Your task to perform on an android device: move an email to a new category in the gmail app Image 0: 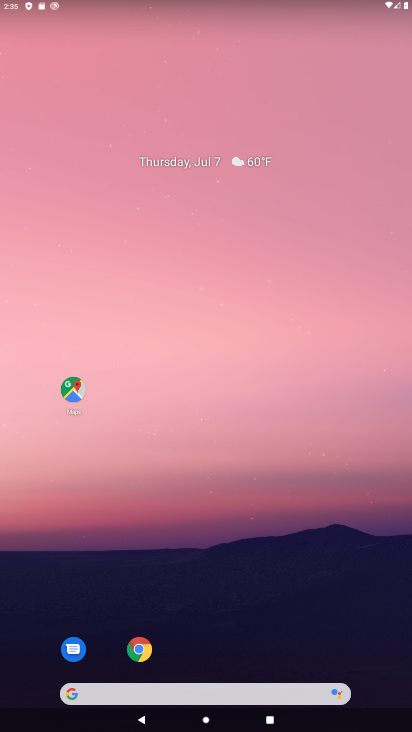
Step 0: drag from (170, 669) to (235, 102)
Your task to perform on an android device: move an email to a new category in the gmail app Image 1: 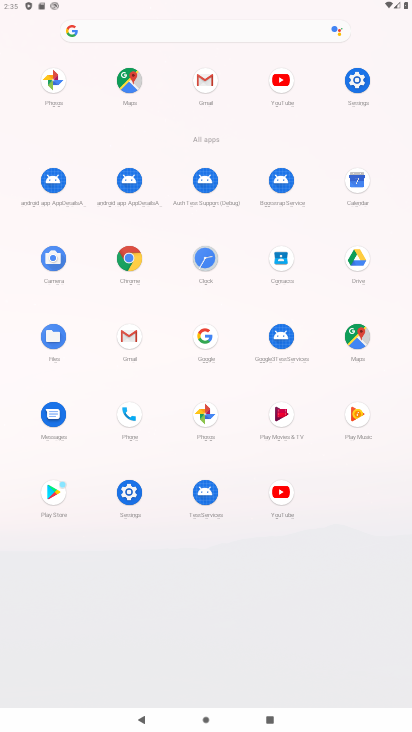
Step 1: click (130, 345)
Your task to perform on an android device: move an email to a new category in the gmail app Image 2: 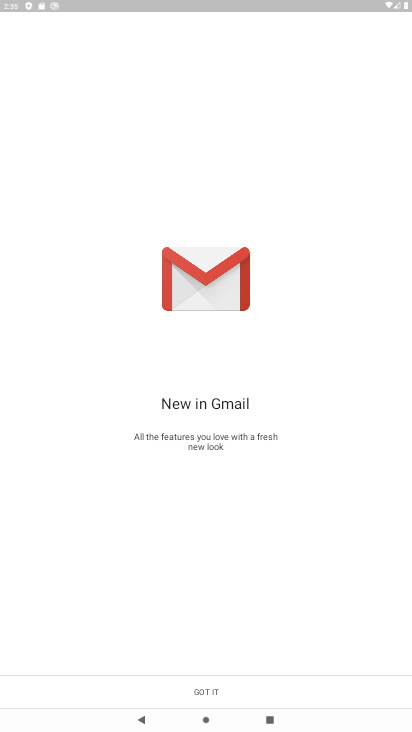
Step 2: click (194, 686)
Your task to perform on an android device: move an email to a new category in the gmail app Image 3: 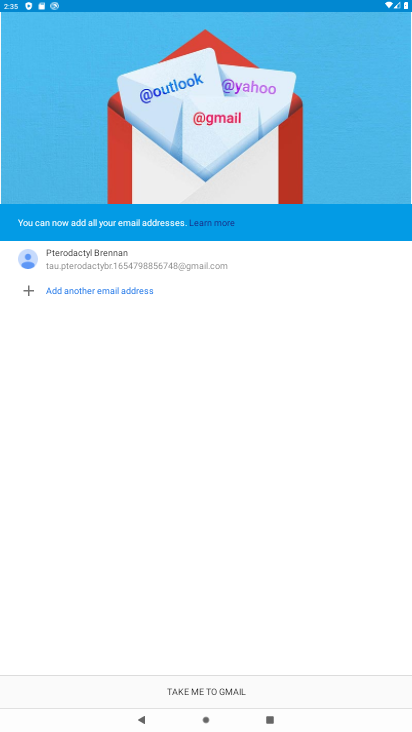
Step 3: click (227, 695)
Your task to perform on an android device: move an email to a new category in the gmail app Image 4: 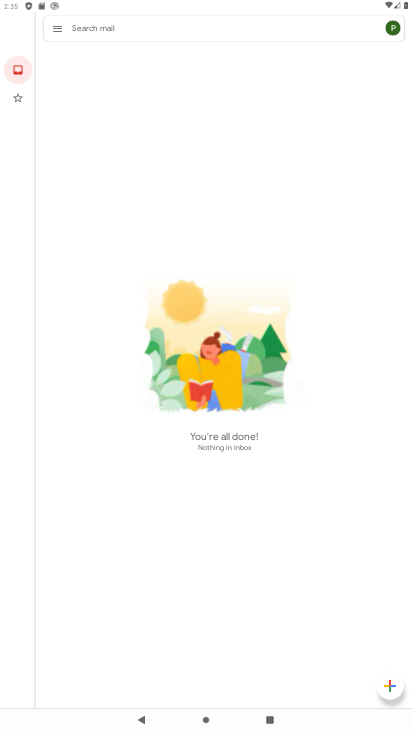
Step 4: task complete